Your task to perform on an android device: Open wifi settings Image 0: 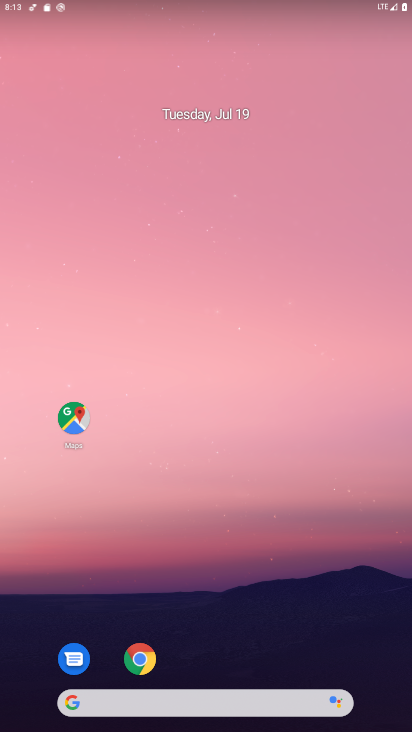
Step 0: drag from (214, 656) to (302, 51)
Your task to perform on an android device: Open wifi settings Image 1: 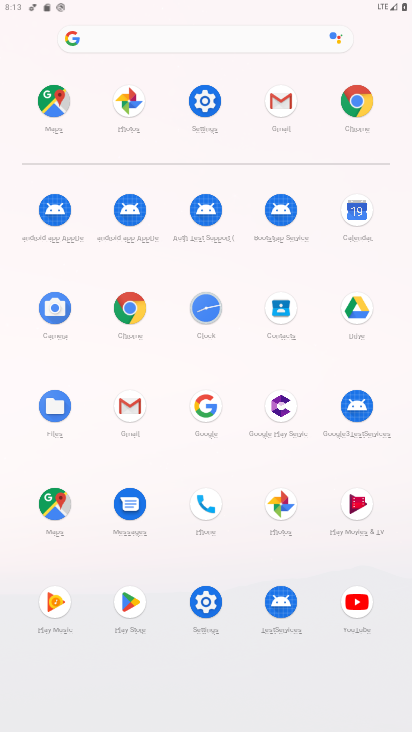
Step 1: click (200, 608)
Your task to perform on an android device: Open wifi settings Image 2: 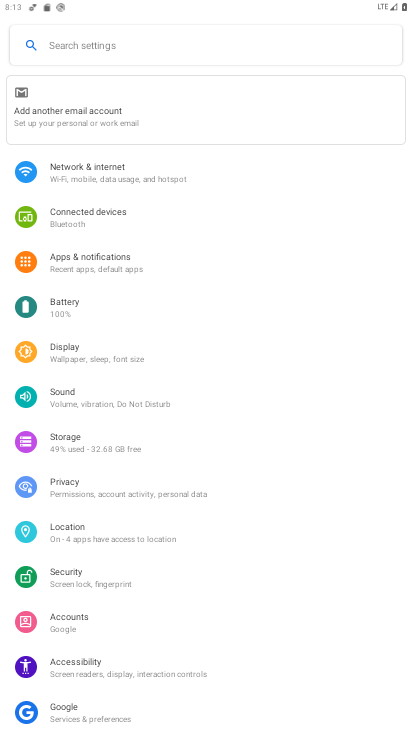
Step 2: click (101, 166)
Your task to perform on an android device: Open wifi settings Image 3: 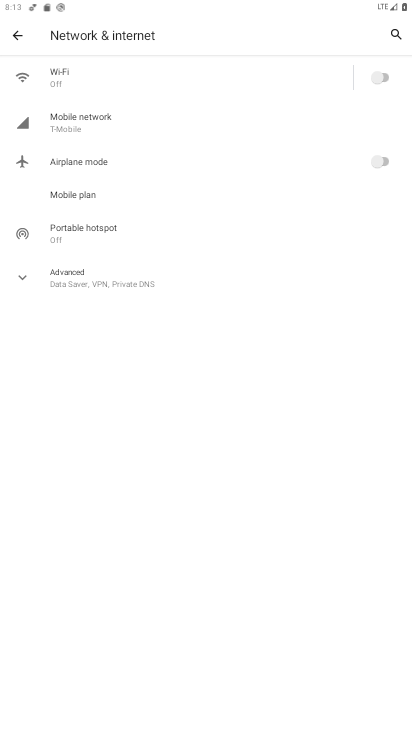
Step 3: click (81, 79)
Your task to perform on an android device: Open wifi settings Image 4: 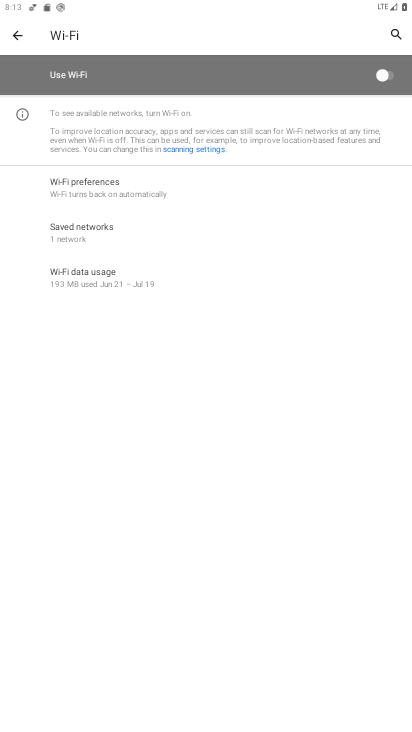
Step 4: task complete